Your task to perform on an android device: Open battery settings Image 0: 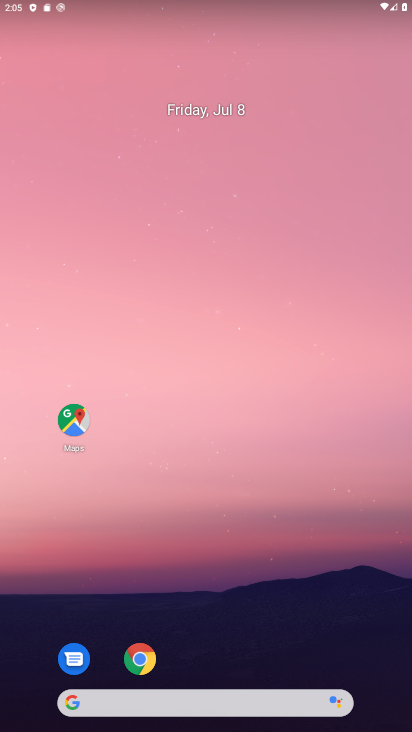
Step 0: drag from (240, 625) to (302, 17)
Your task to perform on an android device: Open battery settings Image 1: 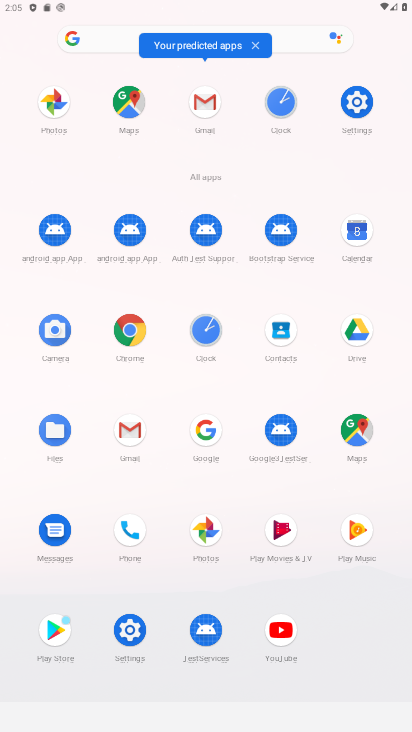
Step 1: click (357, 106)
Your task to perform on an android device: Open battery settings Image 2: 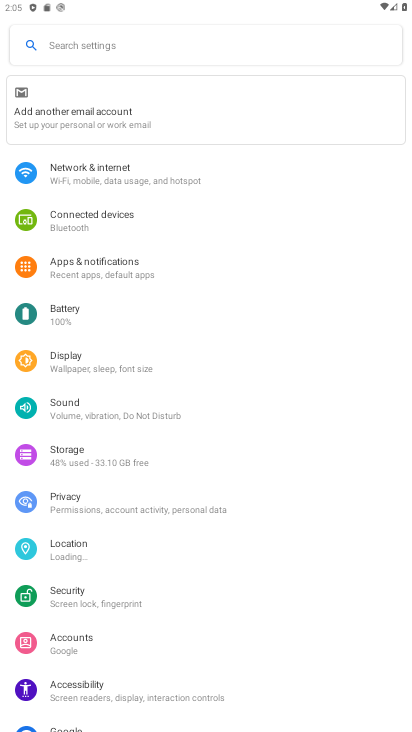
Step 2: click (71, 306)
Your task to perform on an android device: Open battery settings Image 3: 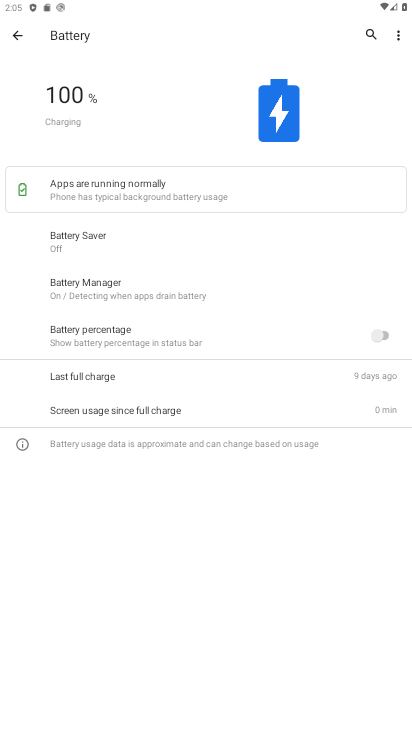
Step 3: task complete